Your task to perform on an android device: change the clock style Image 0: 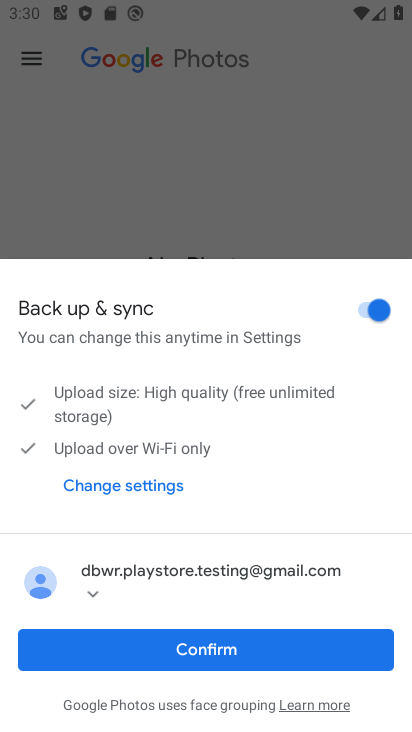
Step 0: press home button
Your task to perform on an android device: change the clock style Image 1: 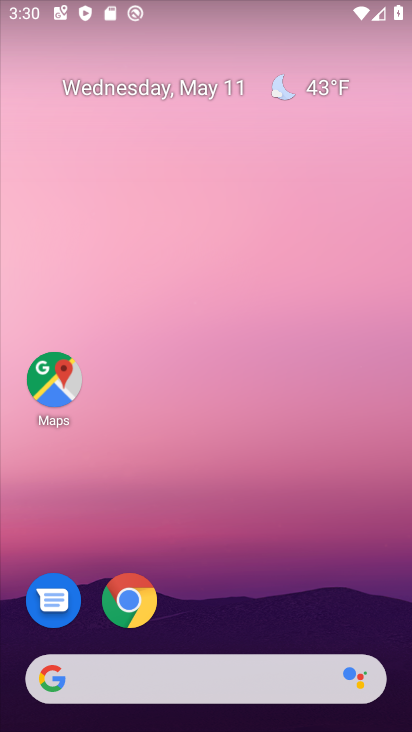
Step 1: drag from (317, 574) to (329, 1)
Your task to perform on an android device: change the clock style Image 2: 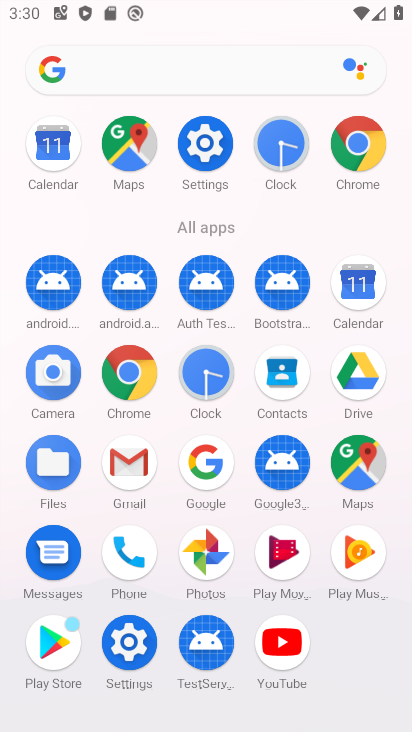
Step 2: click (284, 143)
Your task to perform on an android device: change the clock style Image 3: 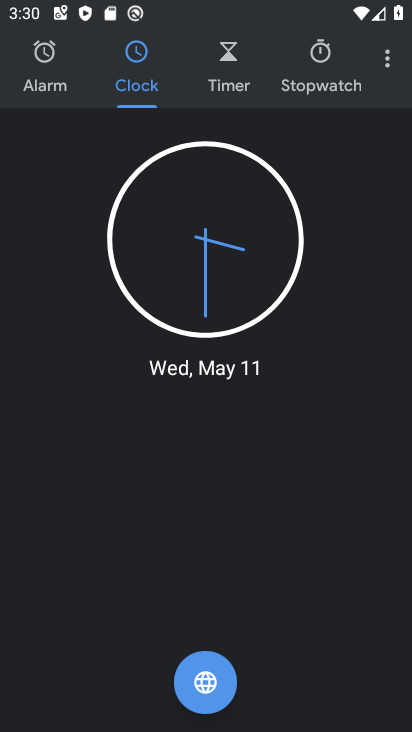
Step 3: click (384, 63)
Your task to perform on an android device: change the clock style Image 4: 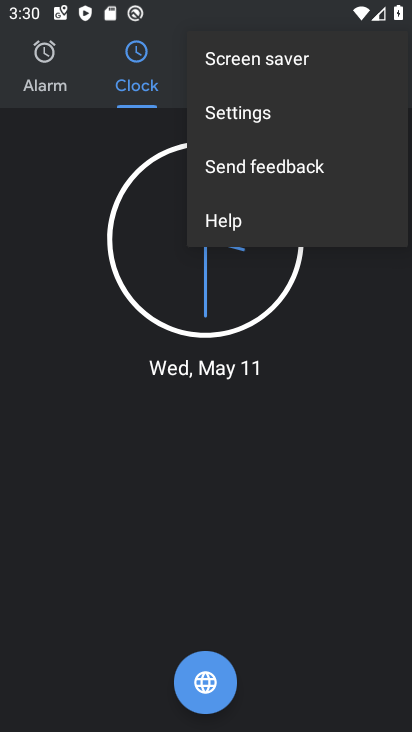
Step 4: click (241, 118)
Your task to perform on an android device: change the clock style Image 5: 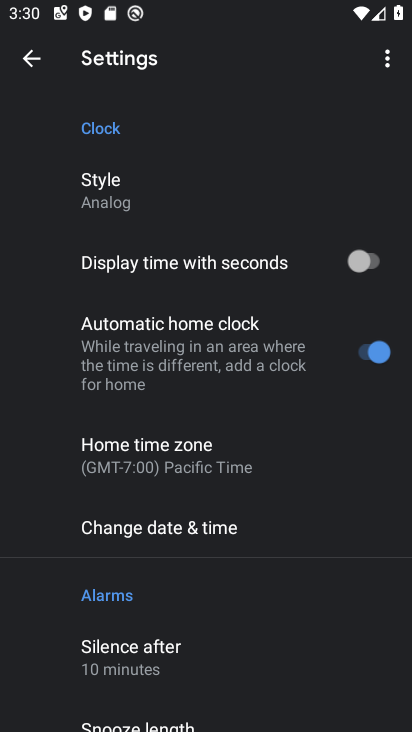
Step 5: click (104, 198)
Your task to perform on an android device: change the clock style Image 6: 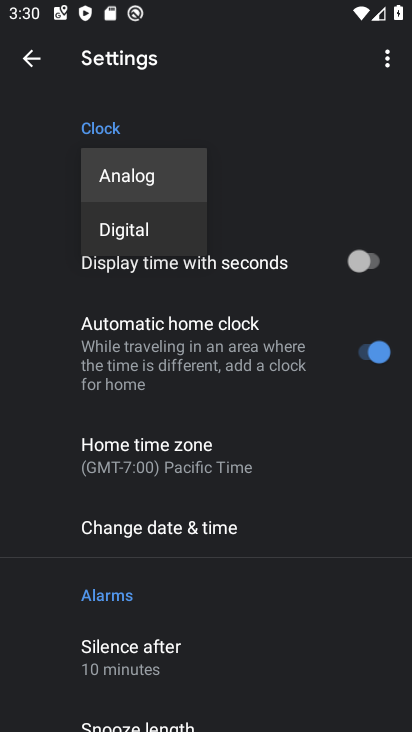
Step 6: click (133, 234)
Your task to perform on an android device: change the clock style Image 7: 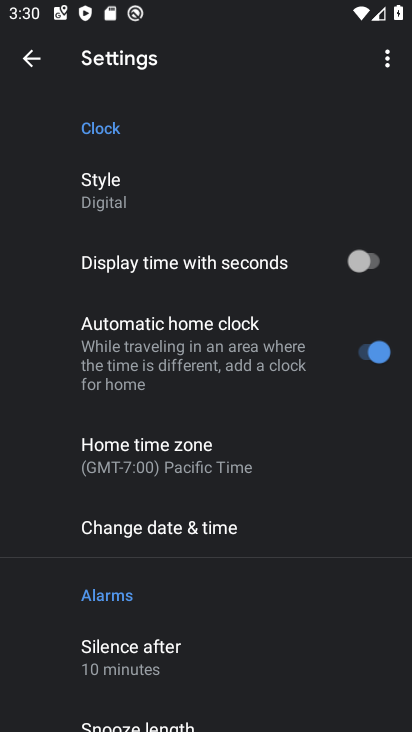
Step 7: task complete